Your task to perform on an android device: toggle location history Image 0: 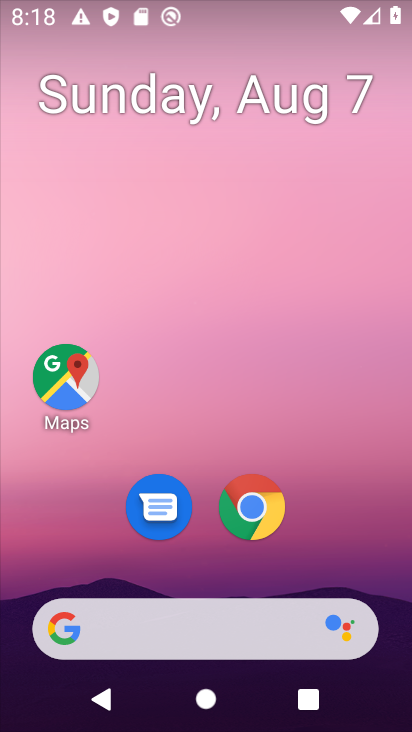
Step 0: click (408, 616)
Your task to perform on an android device: toggle location history Image 1: 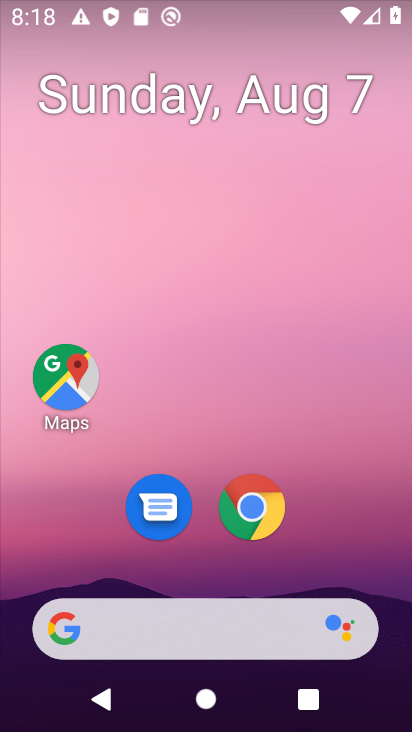
Step 1: click (63, 380)
Your task to perform on an android device: toggle location history Image 2: 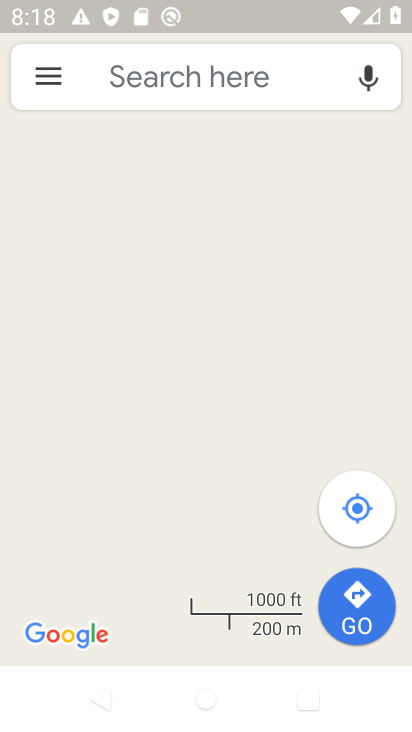
Step 2: click (47, 69)
Your task to perform on an android device: toggle location history Image 3: 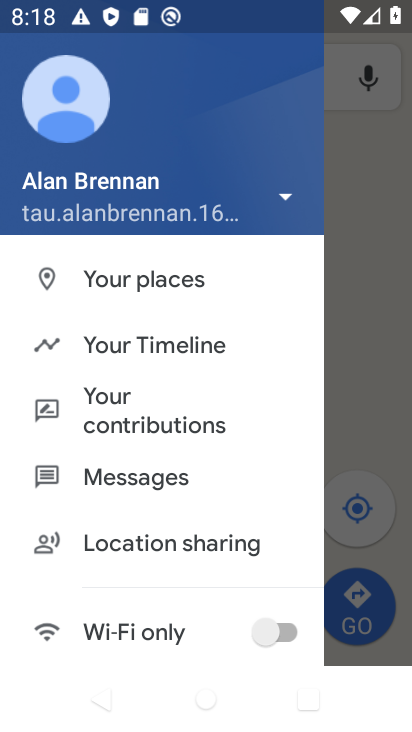
Step 3: click (152, 336)
Your task to perform on an android device: toggle location history Image 4: 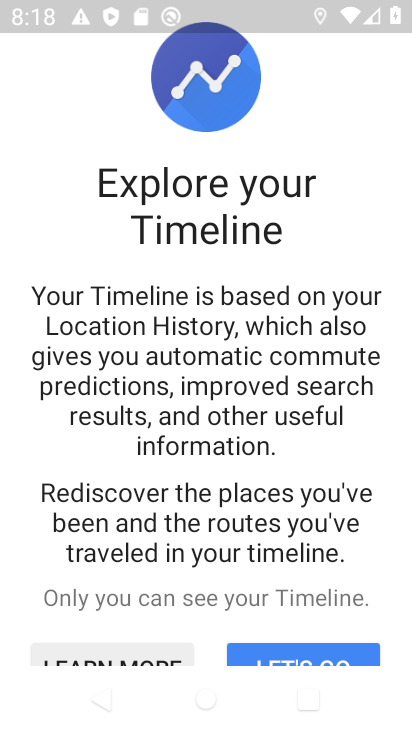
Step 4: drag from (214, 616) to (343, 124)
Your task to perform on an android device: toggle location history Image 5: 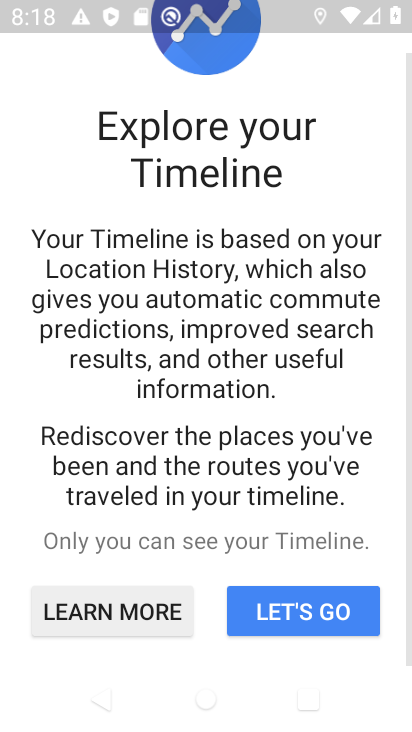
Step 5: click (317, 609)
Your task to perform on an android device: toggle location history Image 6: 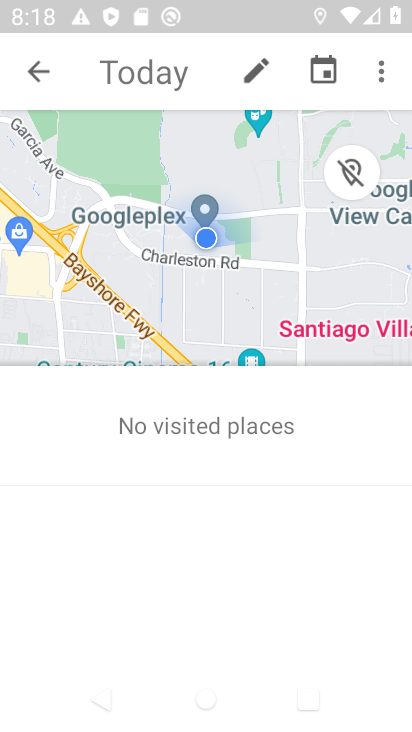
Step 6: click (381, 78)
Your task to perform on an android device: toggle location history Image 7: 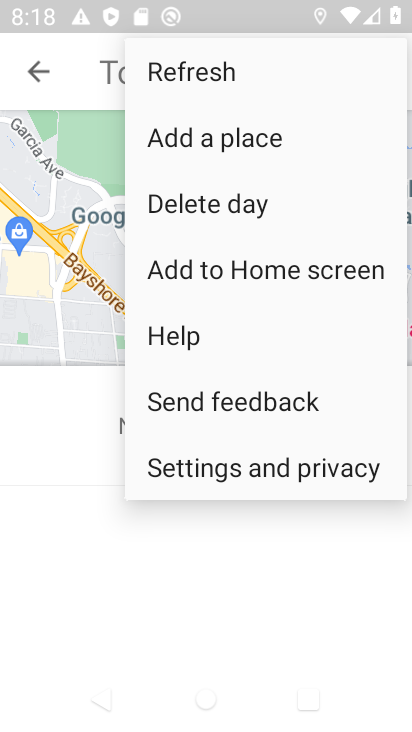
Step 7: click (236, 472)
Your task to perform on an android device: toggle location history Image 8: 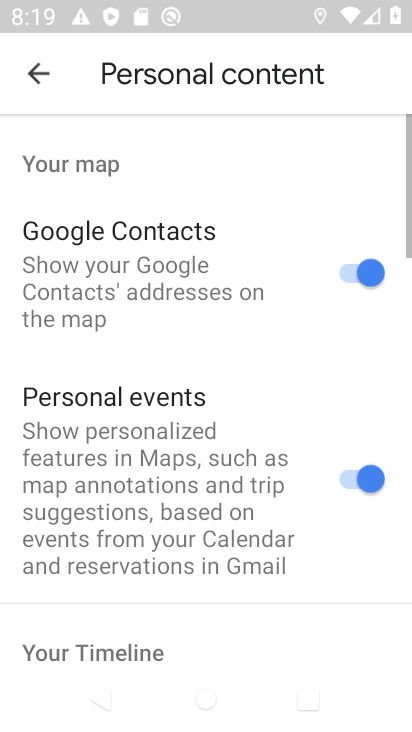
Step 8: drag from (204, 587) to (320, 64)
Your task to perform on an android device: toggle location history Image 9: 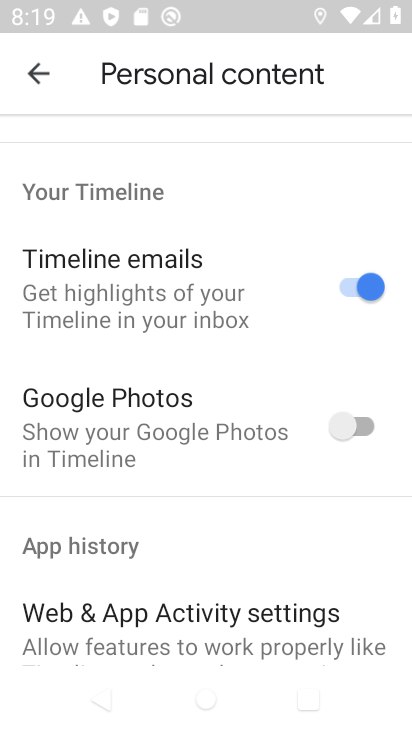
Step 9: drag from (222, 586) to (311, 144)
Your task to perform on an android device: toggle location history Image 10: 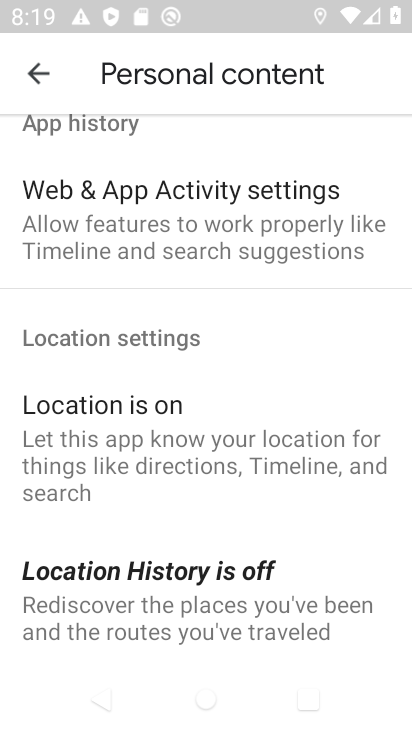
Step 10: click (247, 585)
Your task to perform on an android device: toggle location history Image 11: 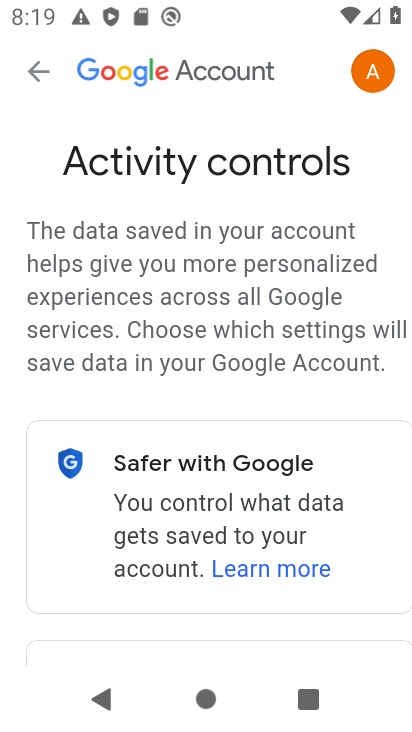
Step 11: task complete